Your task to perform on an android device: set the timer Image 0: 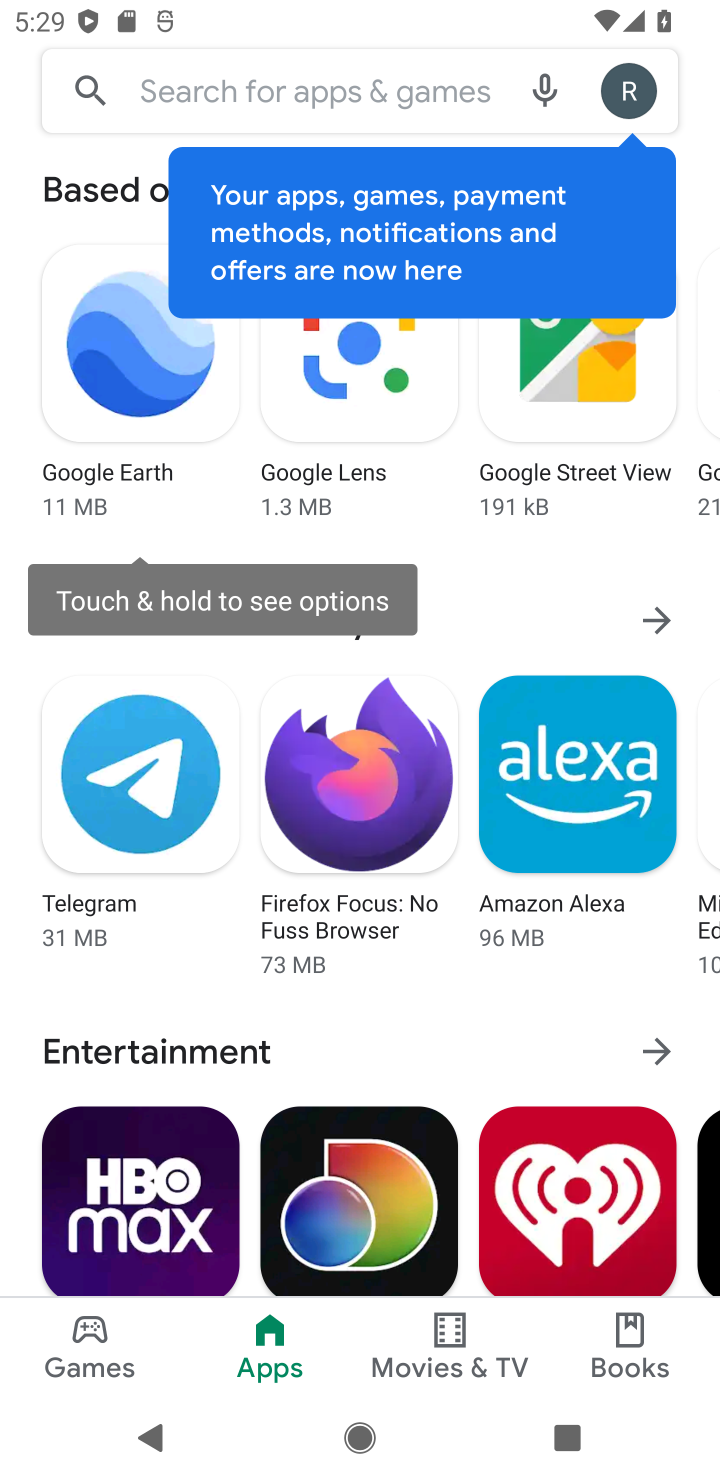
Step 0: press home button
Your task to perform on an android device: set the timer Image 1: 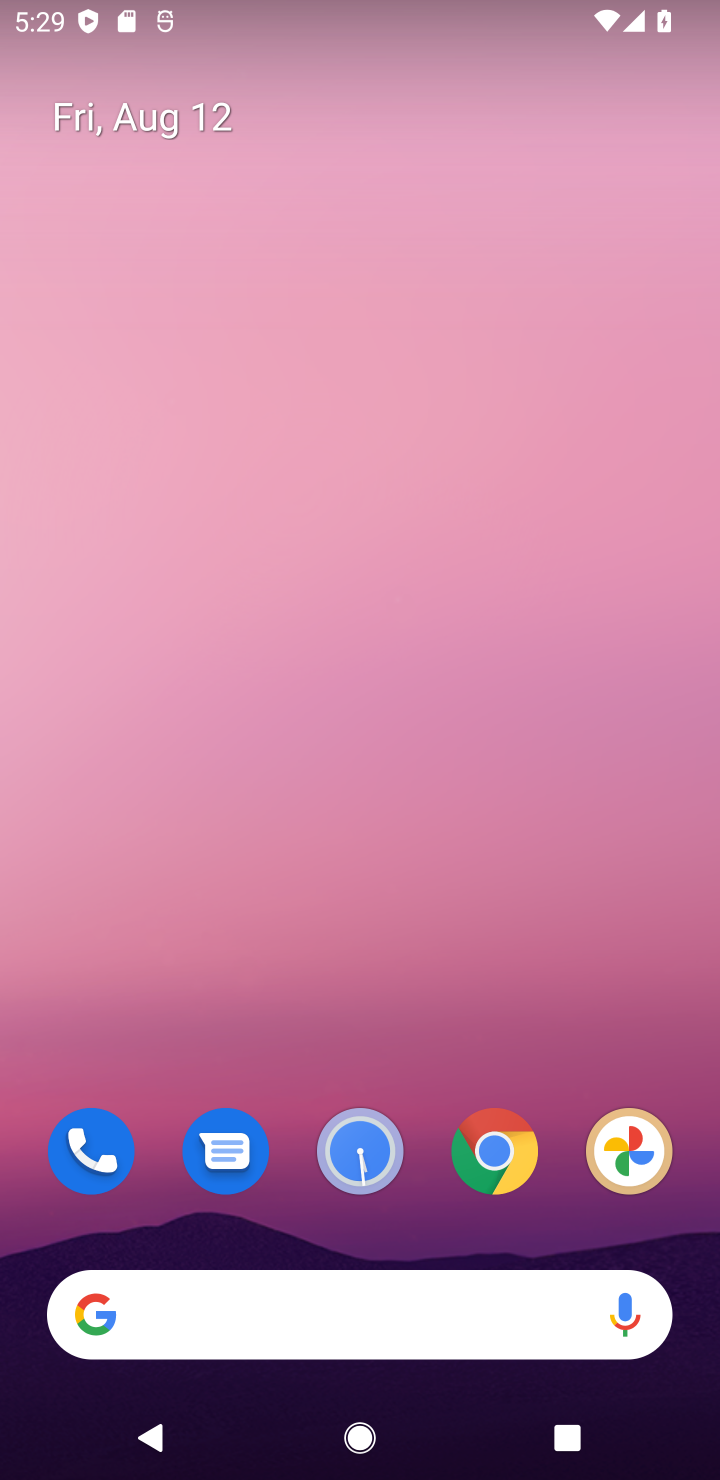
Step 1: drag from (488, 1033) to (453, 91)
Your task to perform on an android device: set the timer Image 2: 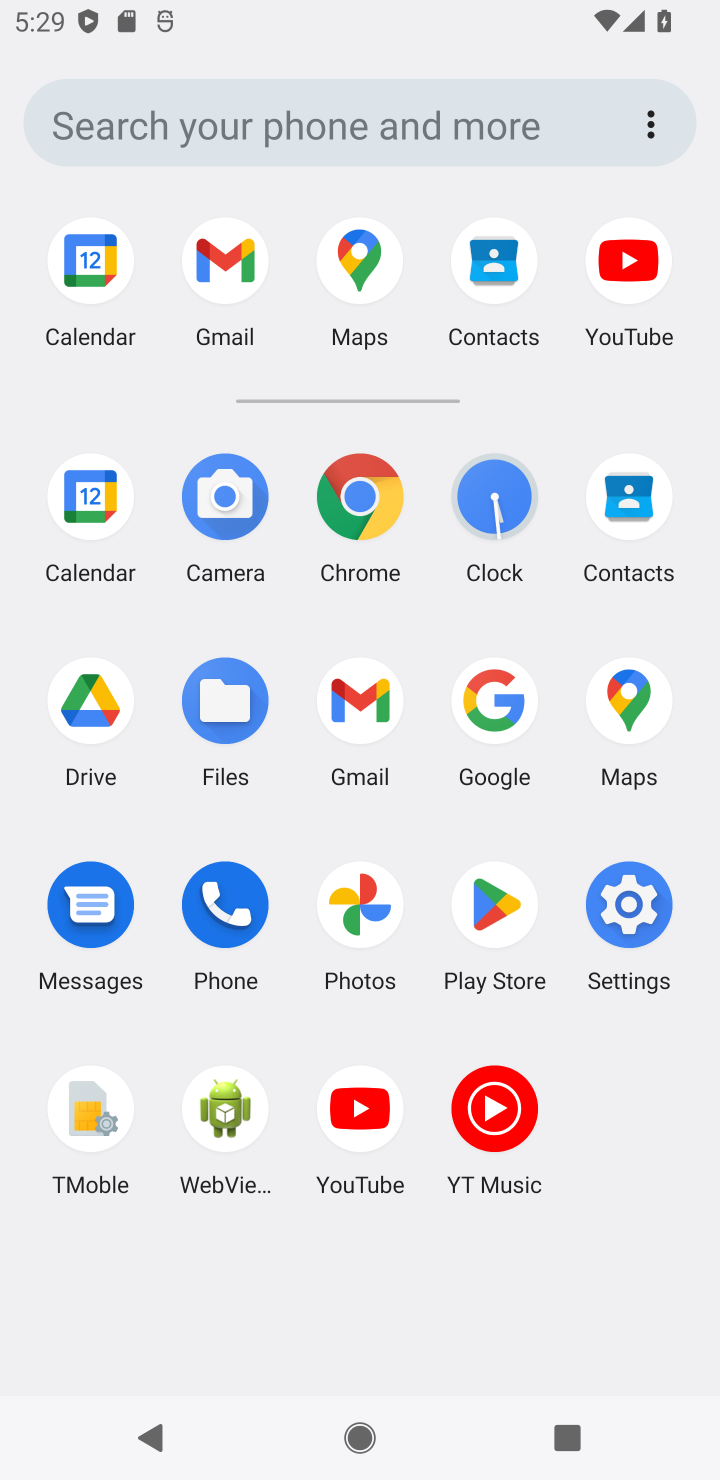
Step 2: click (504, 500)
Your task to perform on an android device: set the timer Image 3: 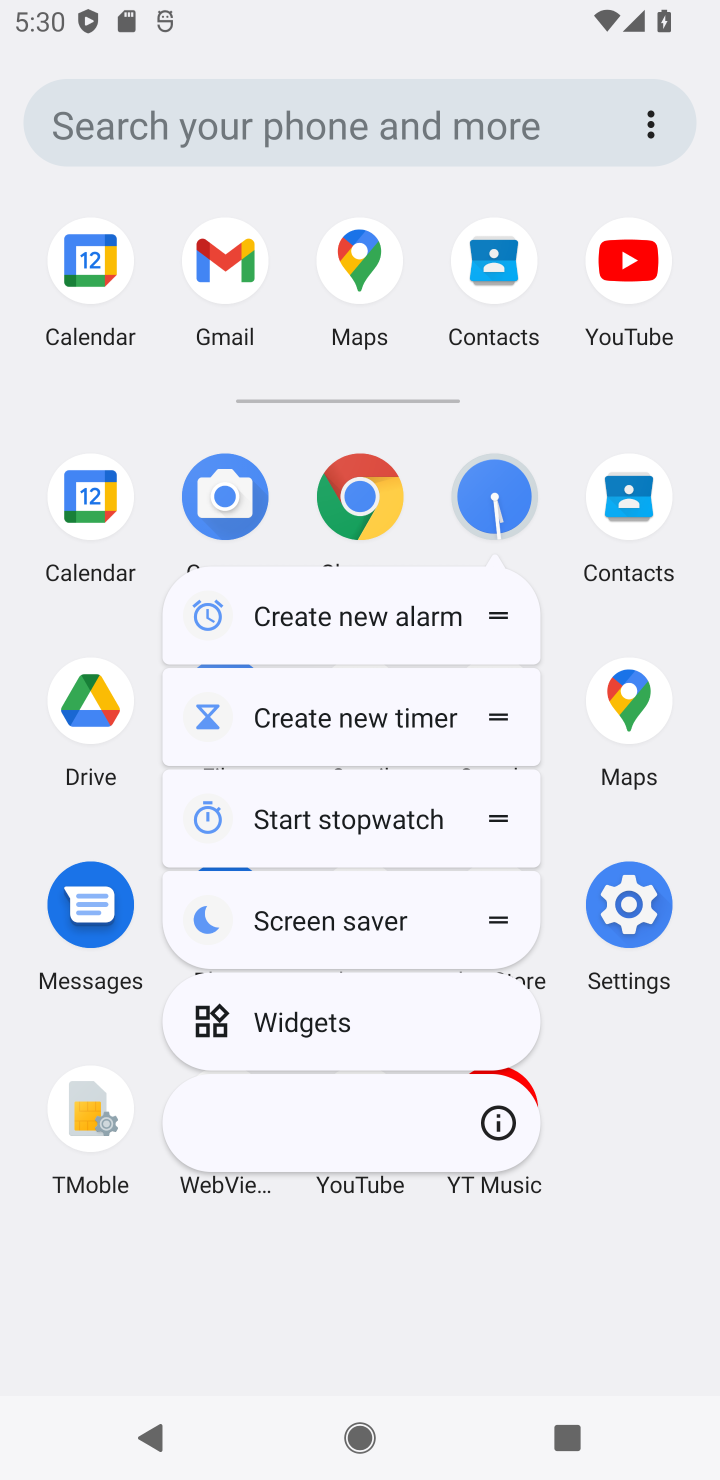
Step 3: click (500, 509)
Your task to perform on an android device: set the timer Image 4: 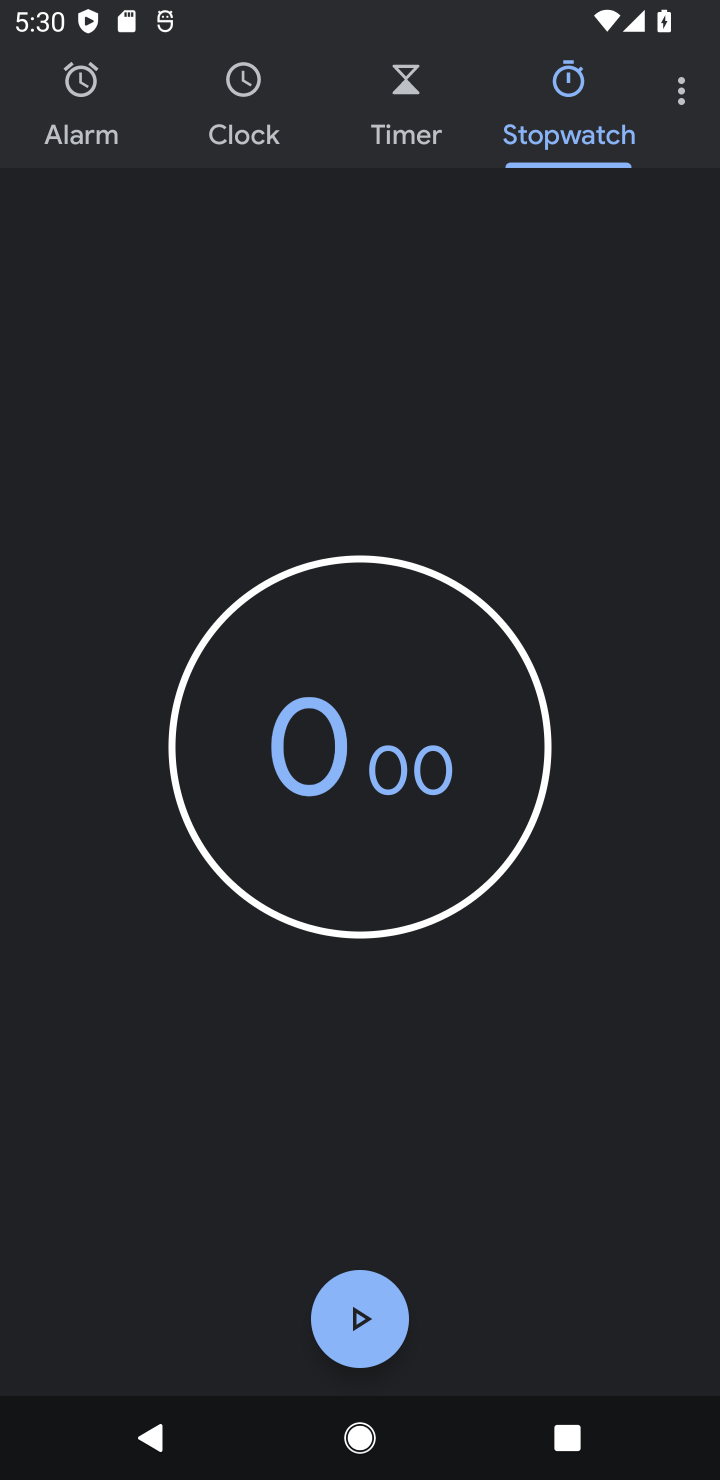
Step 4: click (431, 94)
Your task to perform on an android device: set the timer Image 5: 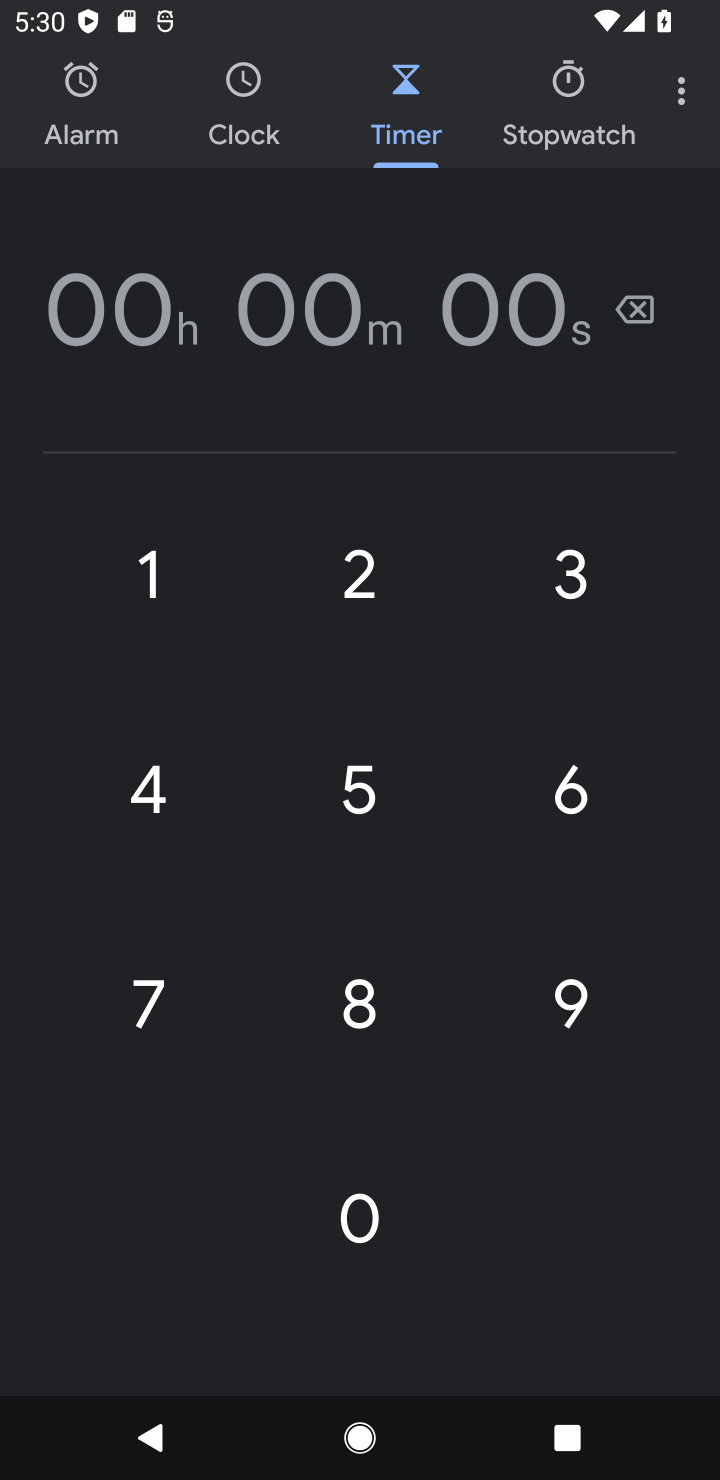
Step 5: click (380, 790)
Your task to perform on an android device: set the timer Image 6: 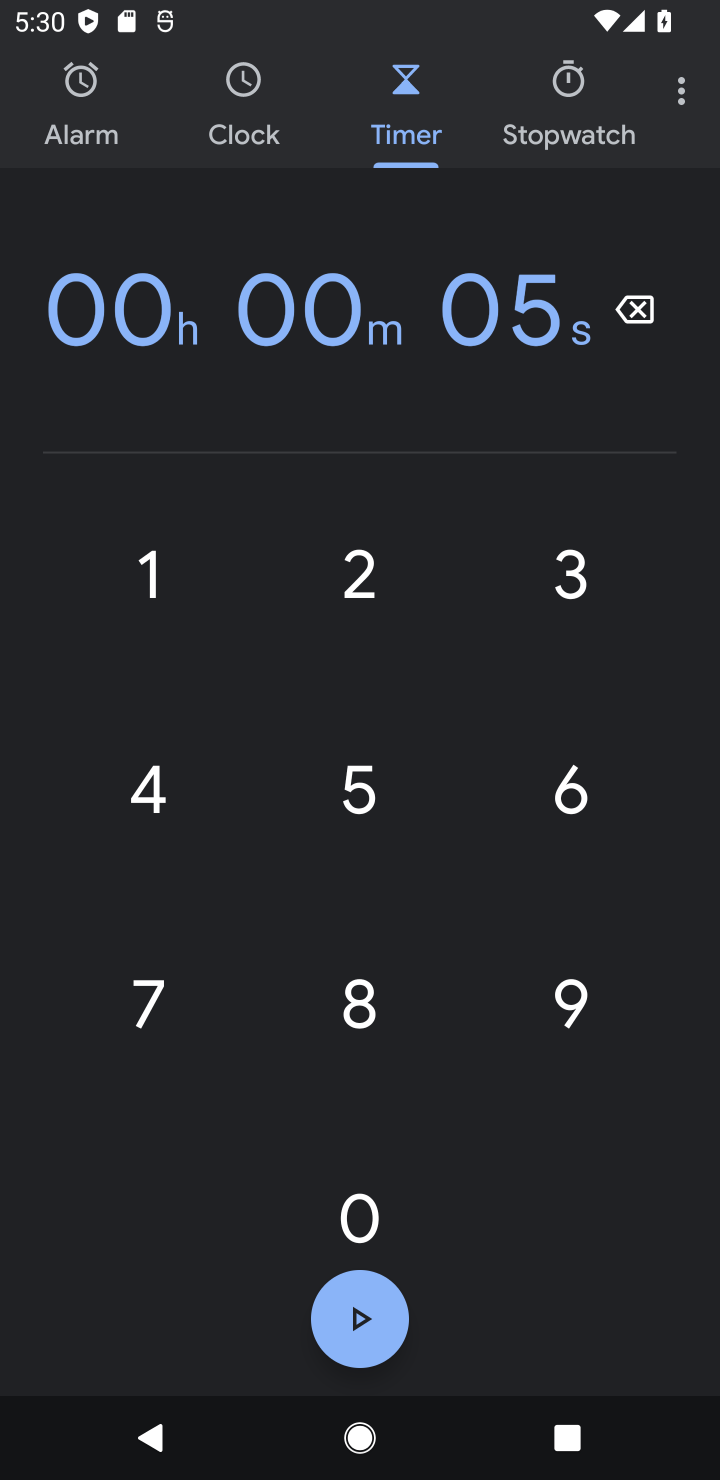
Step 6: task complete